Your task to perform on an android device: turn smart compose on in the gmail app Image 0: 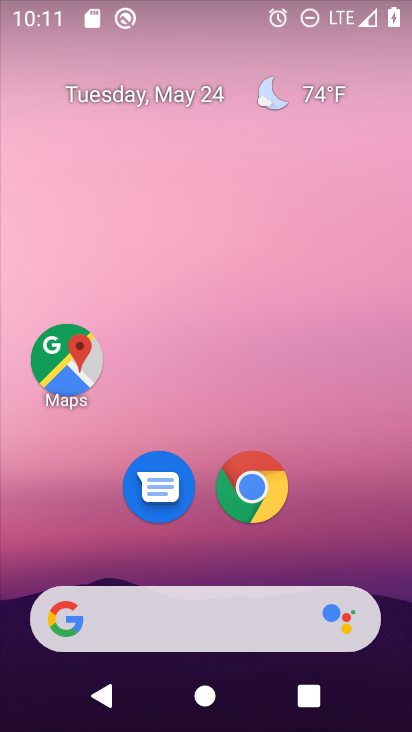
Step 0: drag from (338, 580) to (370, 2)
Your task to perform on an android device: turn smart compose on in the gmail app Image 1: 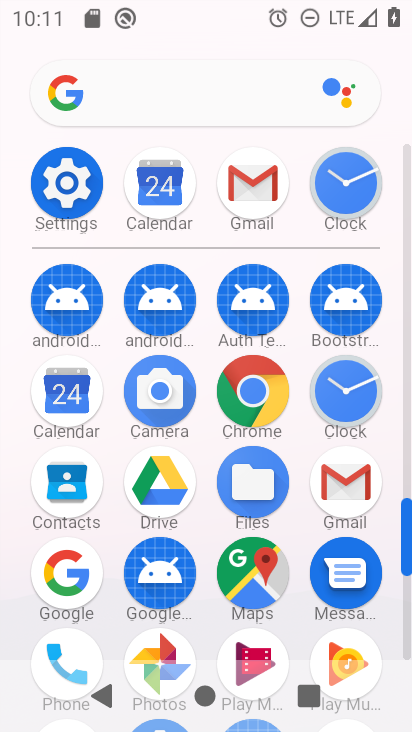
Step 1: click (255, 198)
Your task to perform on an android device: turn smart compose on in the gmail app Image 2: 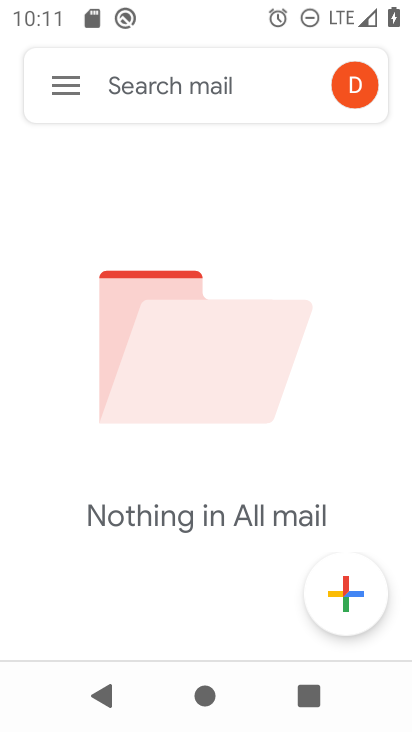
Step 2: click (70, 97)
Your task to perform on an android device: turn smart compose on in the gmail app Image 3: 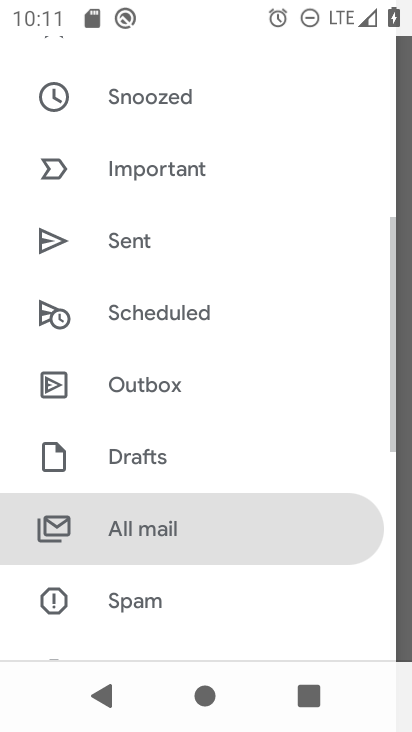
Step 3: drag from (172, 574) to (131, 132)
Your task to perform on an android device: turn smart compose on in the gmail app Image 4: 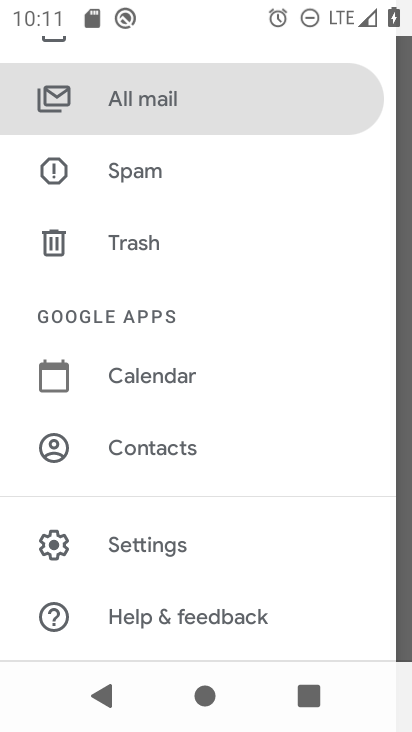
Step 4: drag from (167, 526) to (152, 182)
Your task to perform on an android device: turn smart compose on in the gmail app Image 5: 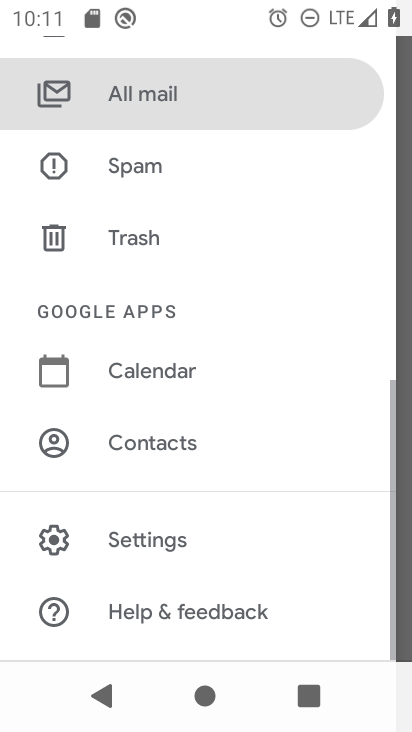
Step 5: click (153, 540)
Your task to perform on an android device: turn smart compose on in the gmail app Image 6: 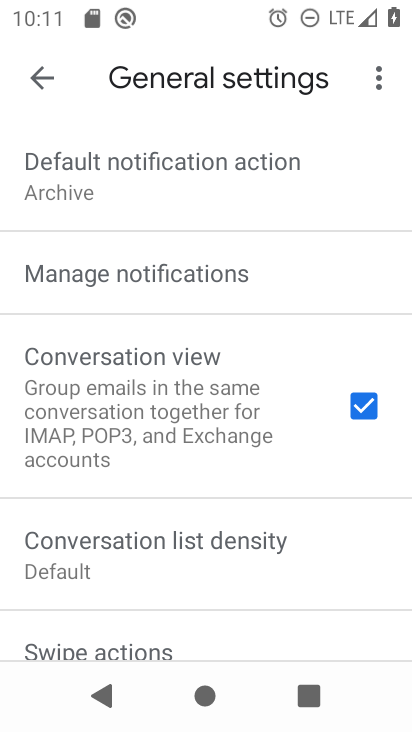
Step 6: click (32, 75)
Your task to perform on an android device: turn smart compose on in the gmail app Image 7: 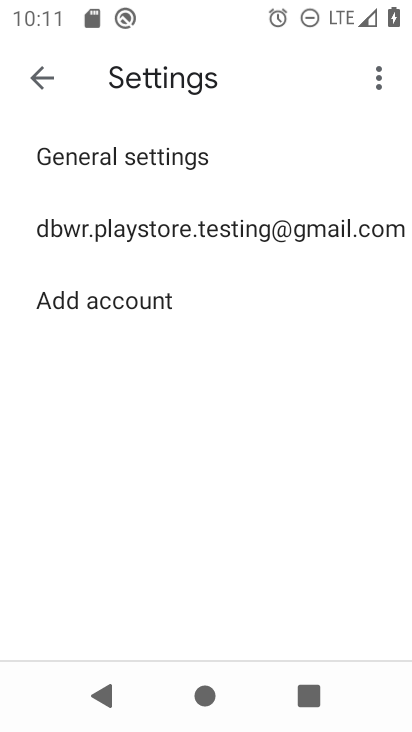
Step 7: click (124, 249)
Your task to perform on an android device: turn smart compose on in the gmail app Image 8: 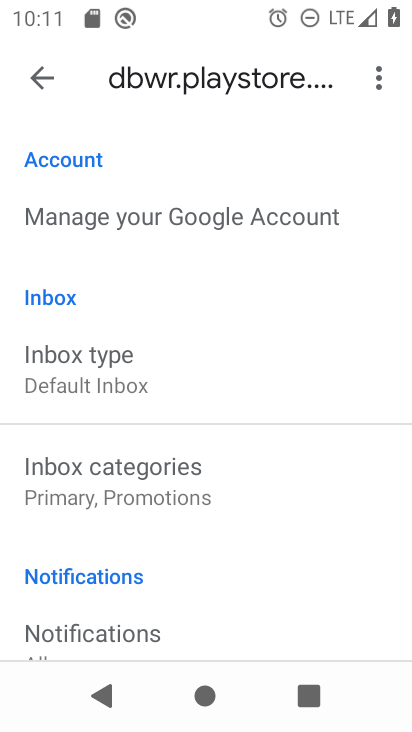
Step 8: task complete